Your task to perform on an android device: toggle pop-ups in chrome Image 0: 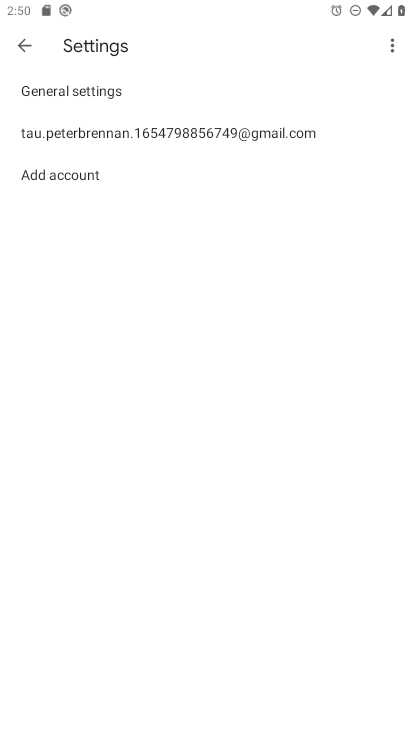
Step 0: press home button
Your task to perform on an android device: toggle pop-ups in chrome Image 1: 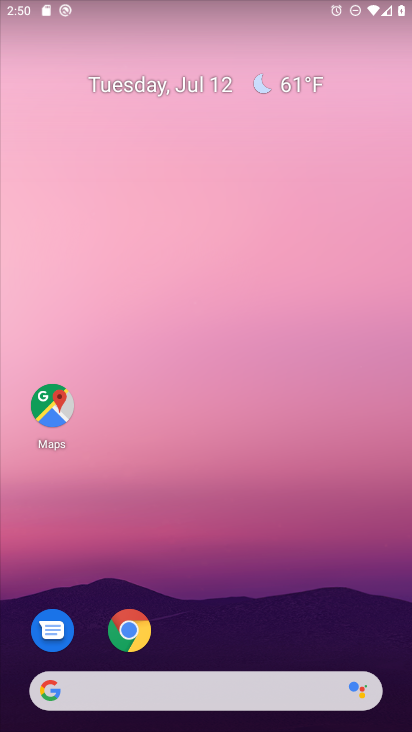
Step 1: click (129, 620)
Your task to perform on an android device: toggle pop-ups in chrome Image 2: 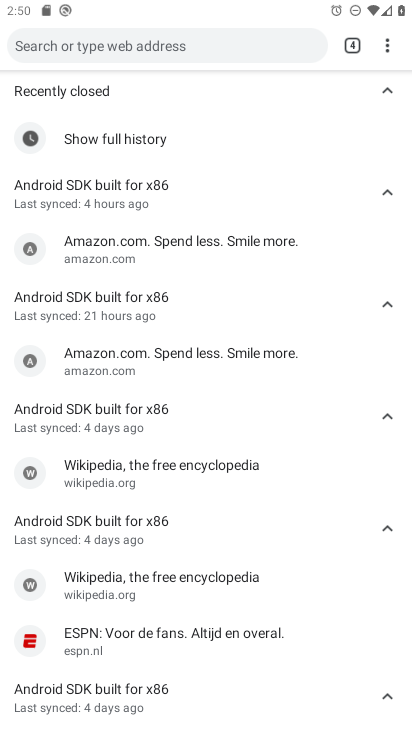
Step 2: click (389, 52)
Your task to perform on an android device: toggle pop-ups in chrome Image 3: 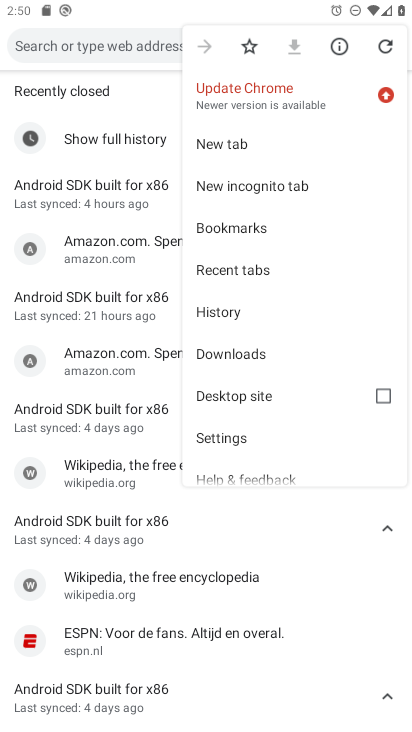
Step 3: click (226, 450)
Your task to perform on an android device: toggle pop-ups in chrome Image 4: 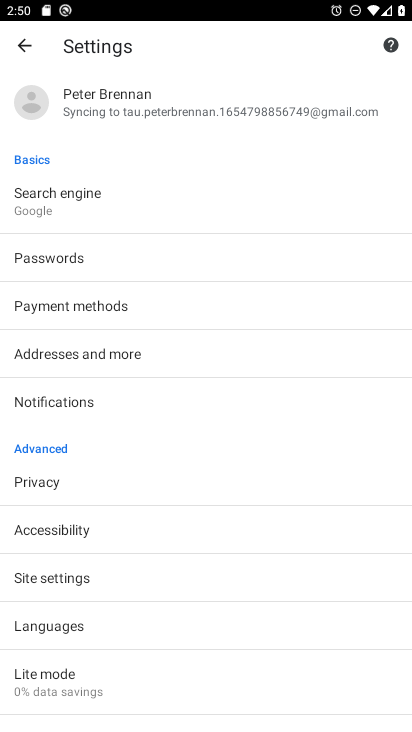
Step 4: click (125, 583)
Your task to perform on an android device: toggle pop-ups in chrome Image 5: 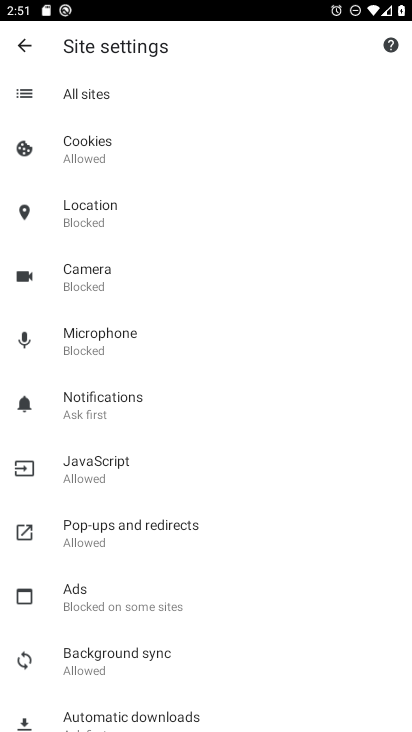
Step 5: click (131, 522)
Your task to perform on an android device: toggle pop-ups in chrome Image 6: 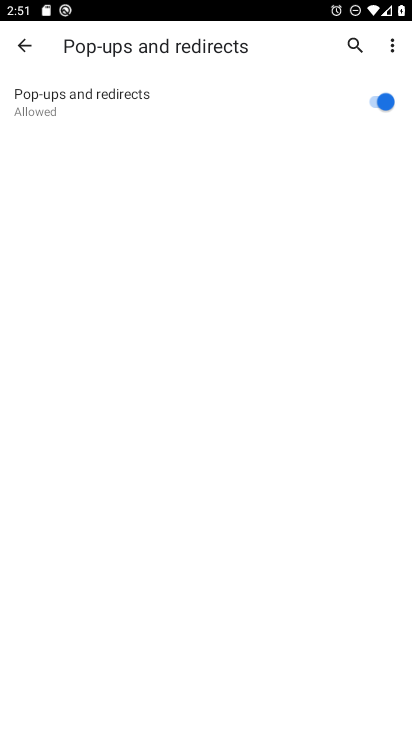
Step 6: click (375, 105)
Your task to perform on an android device: toggle pop-ups in chrome Image 7: 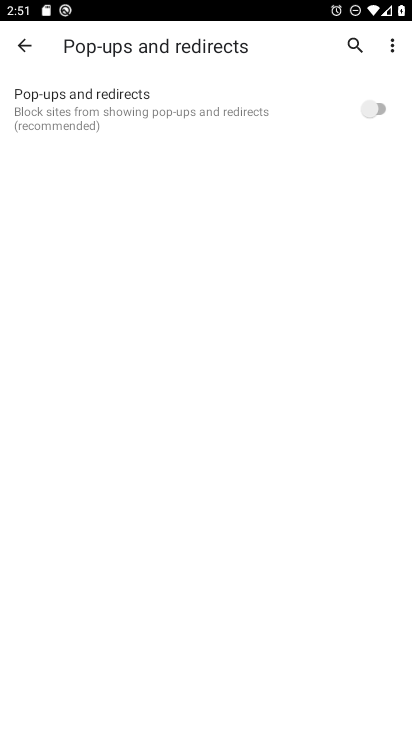
Step 7: task complete